Your task to perform on an android device: uninstall "Reddit" Image 0: 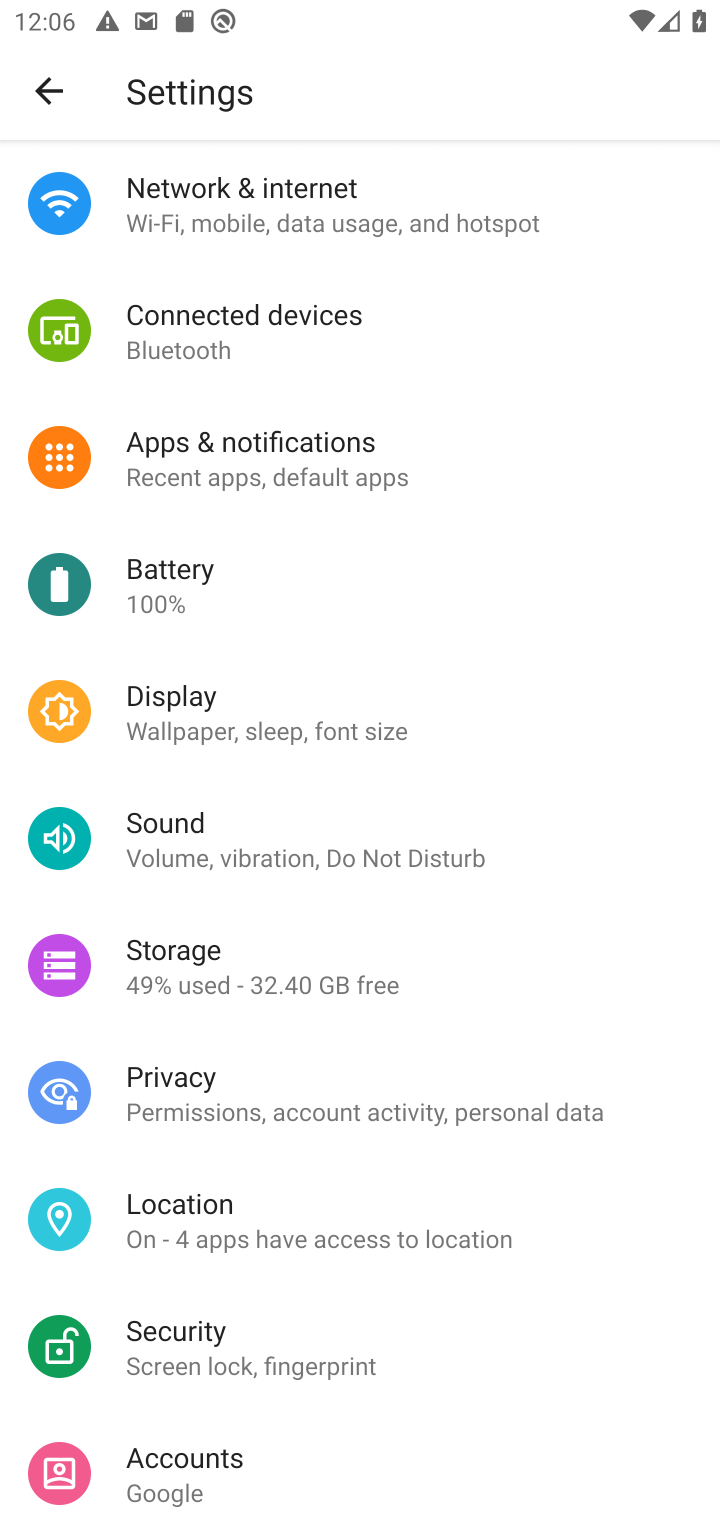
Step 0: press home button
Your task to perform on an android device: uninstall "Reddit" Image 1: 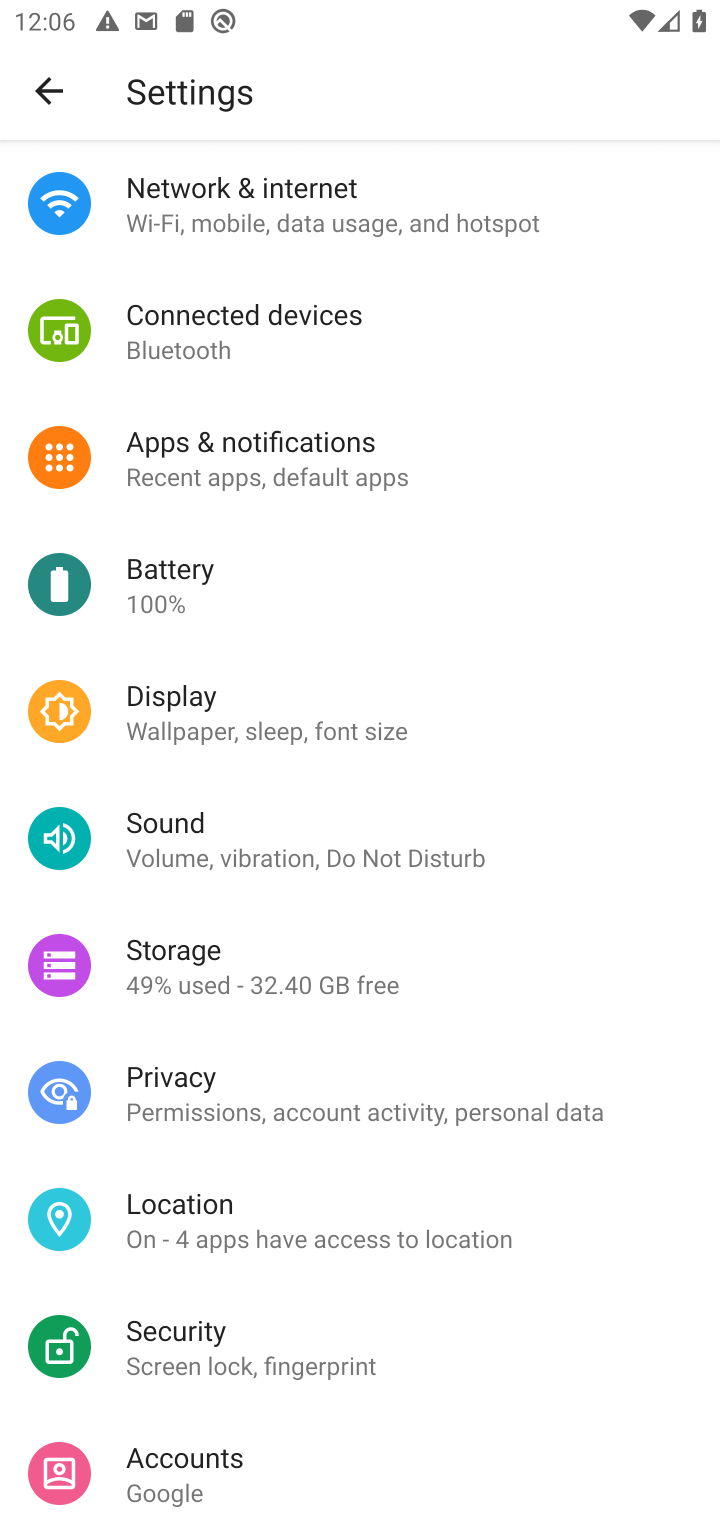
Step 1: press home button
Your task to perform on an android device: uninstall "Reddit" Image 2: 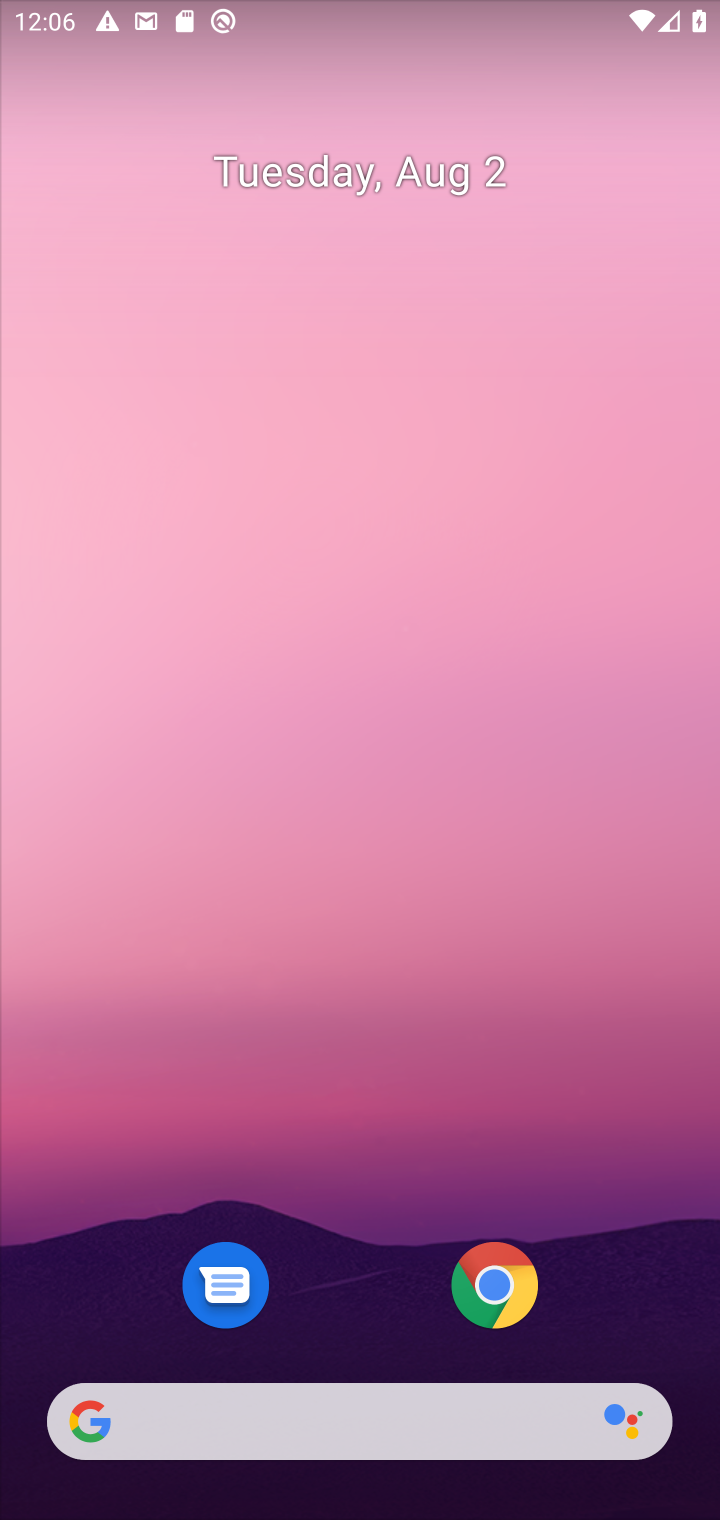
Step 2: click (359, 631)
Your task to perform on an android device: uninstall "Reddit" Image 3: 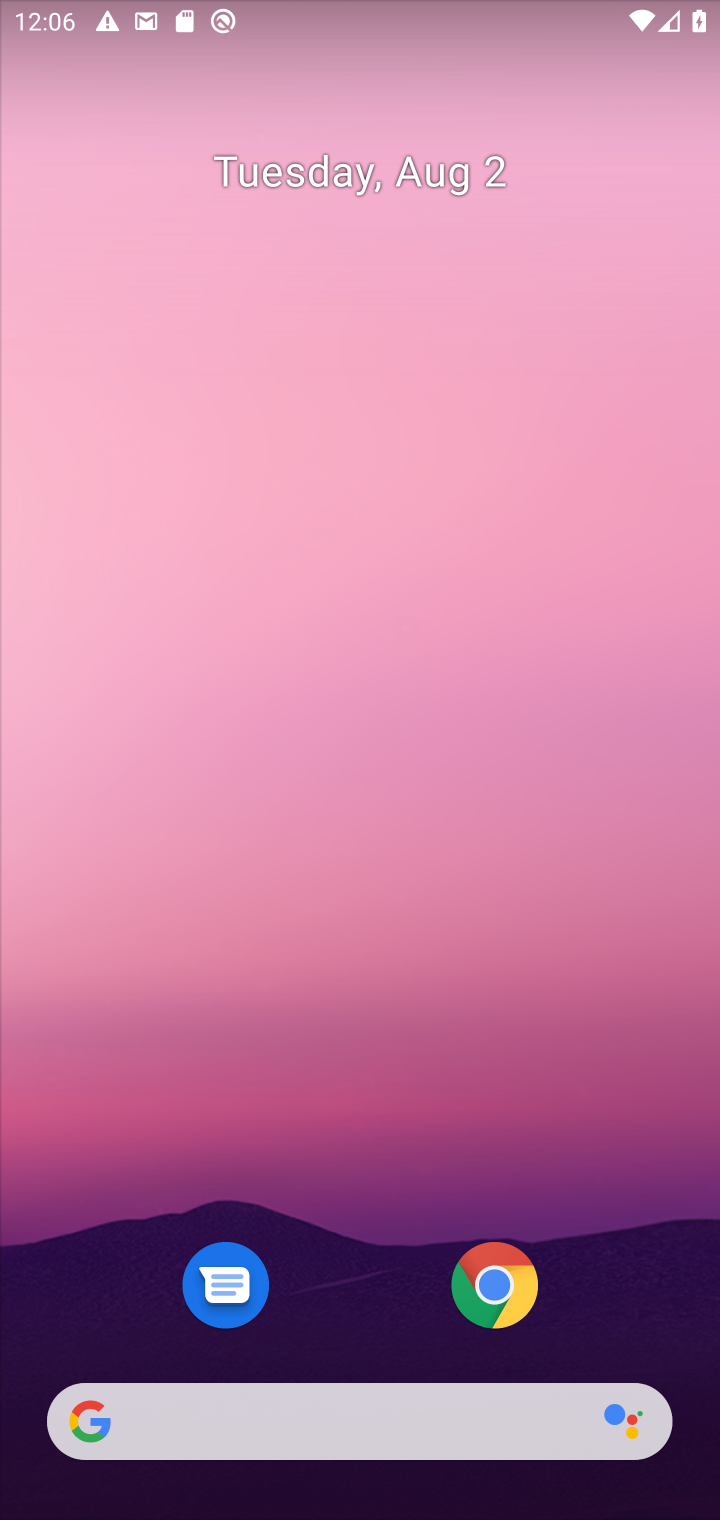
Step 3: drag from (285, 1258) to (423, 4)
Your task to perform on an android device: uninstall "Reddit" Image 4: 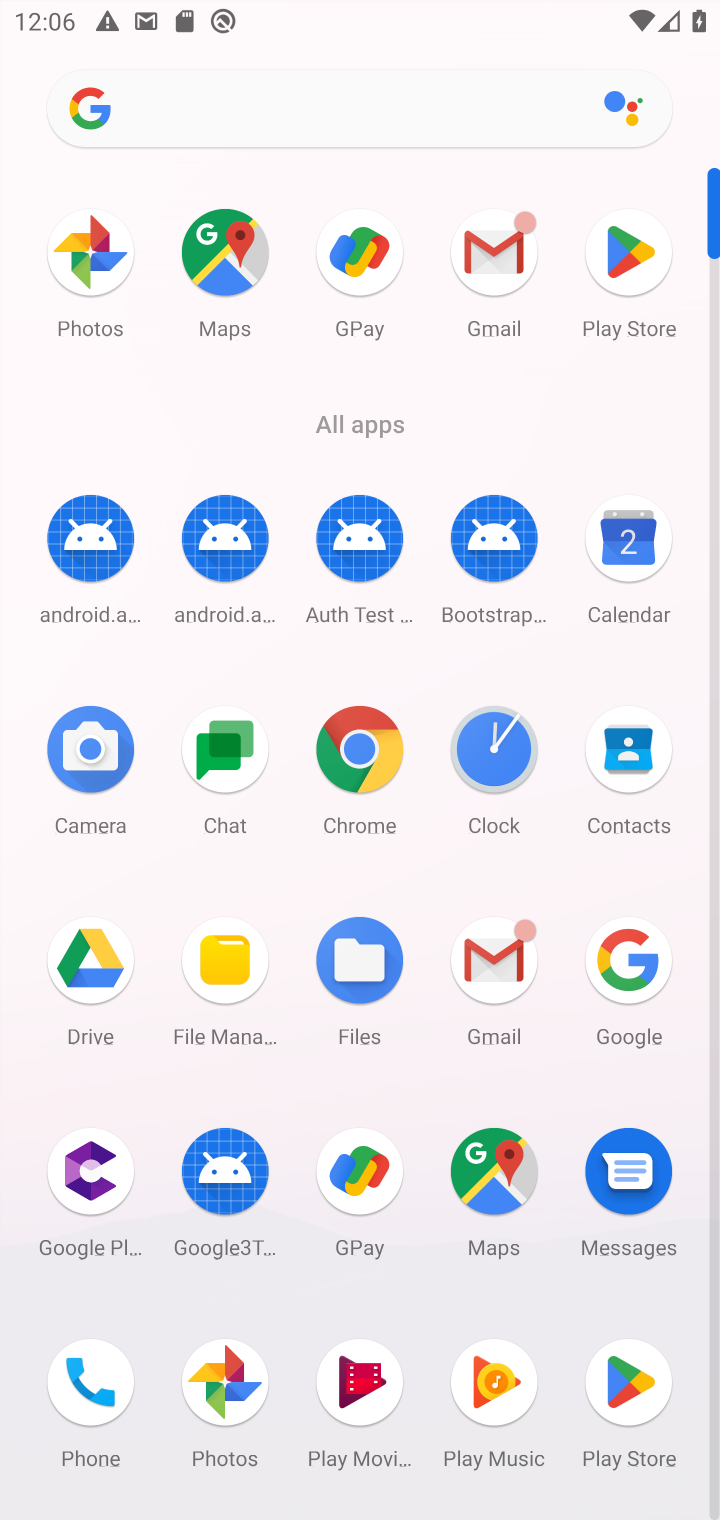
Step 4: click (596, 269)
Your task to perform on an android device: uninstall "Reddit" Image 5: 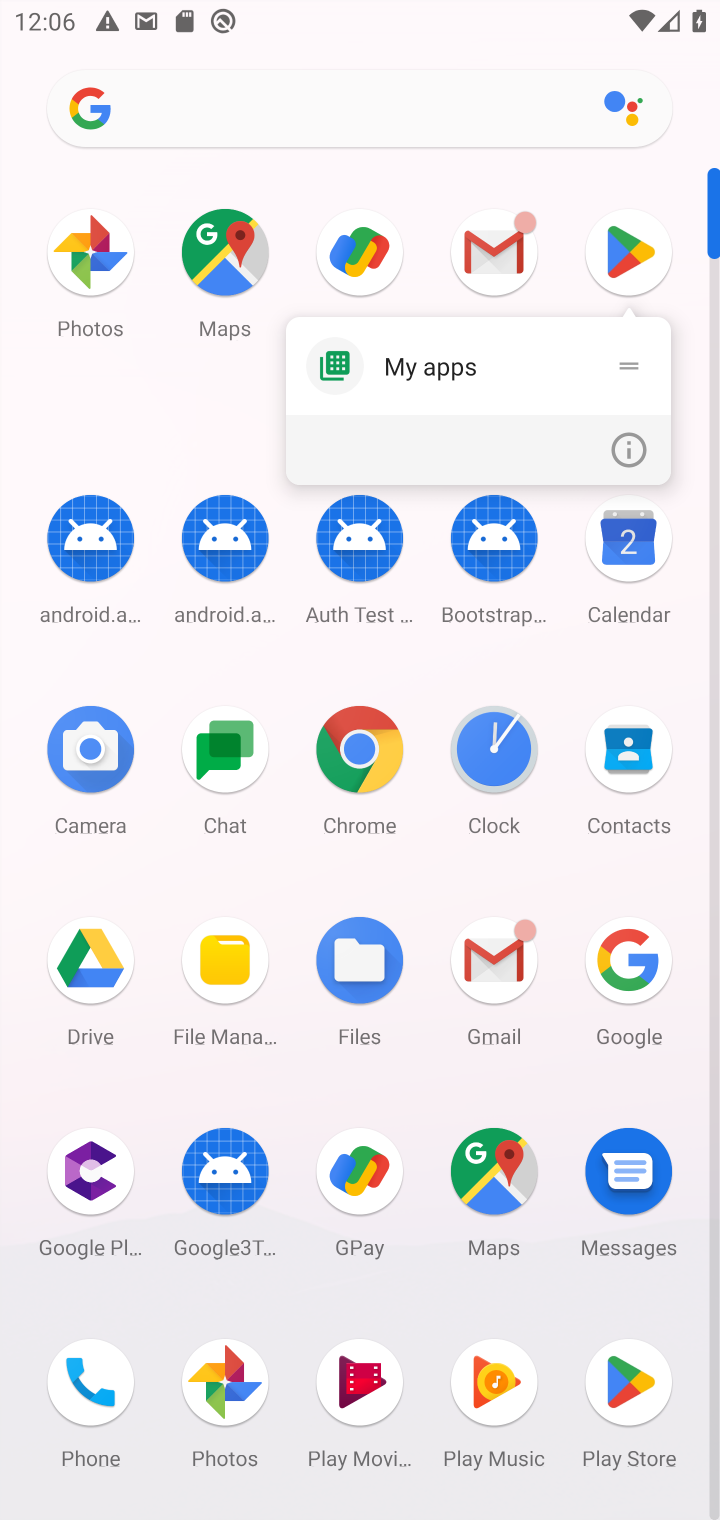
Step 5: click (621, 282)
Your task to perform on an android device: uninstall "Reddit" Image 6: 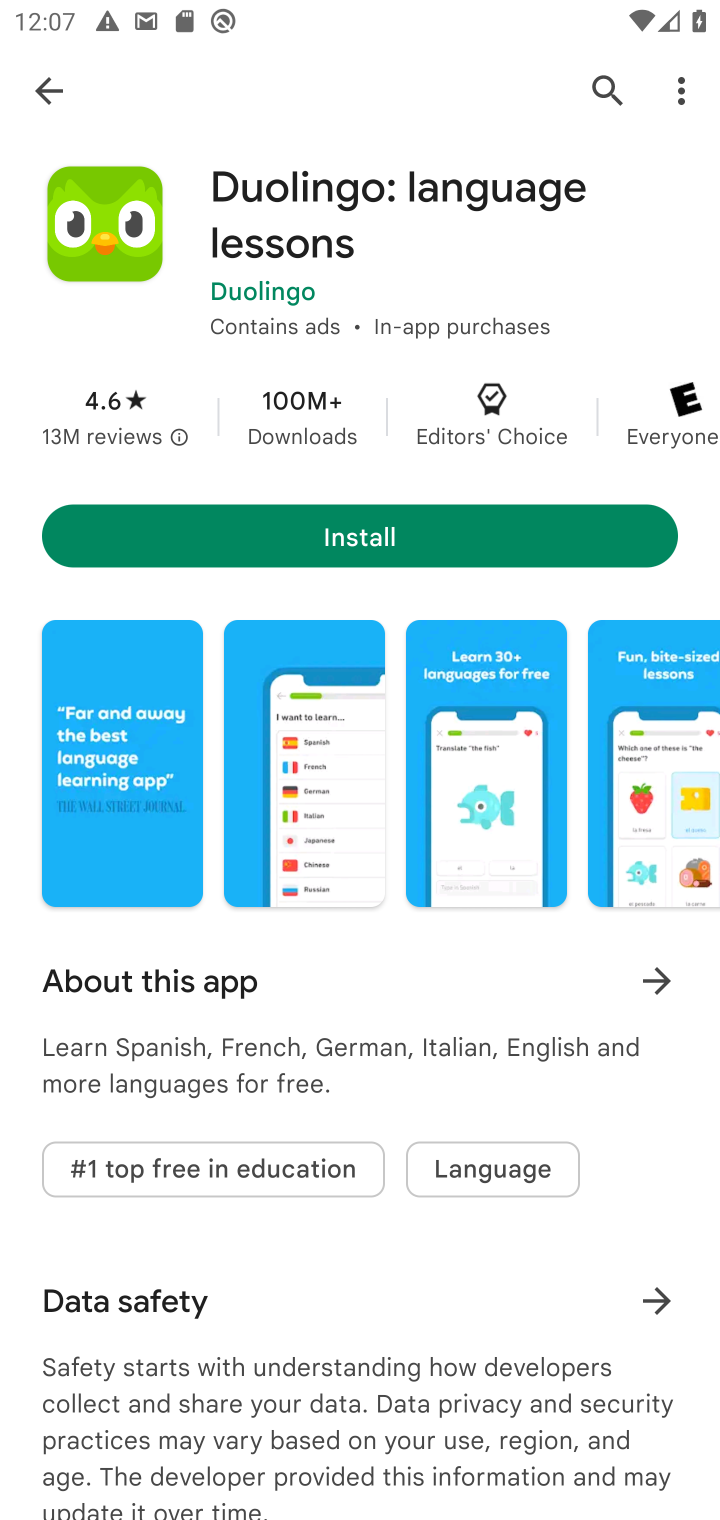
Step 6: click (620, 73)
Your task to perform on an android device: uninstall "Reddit" Image 7: 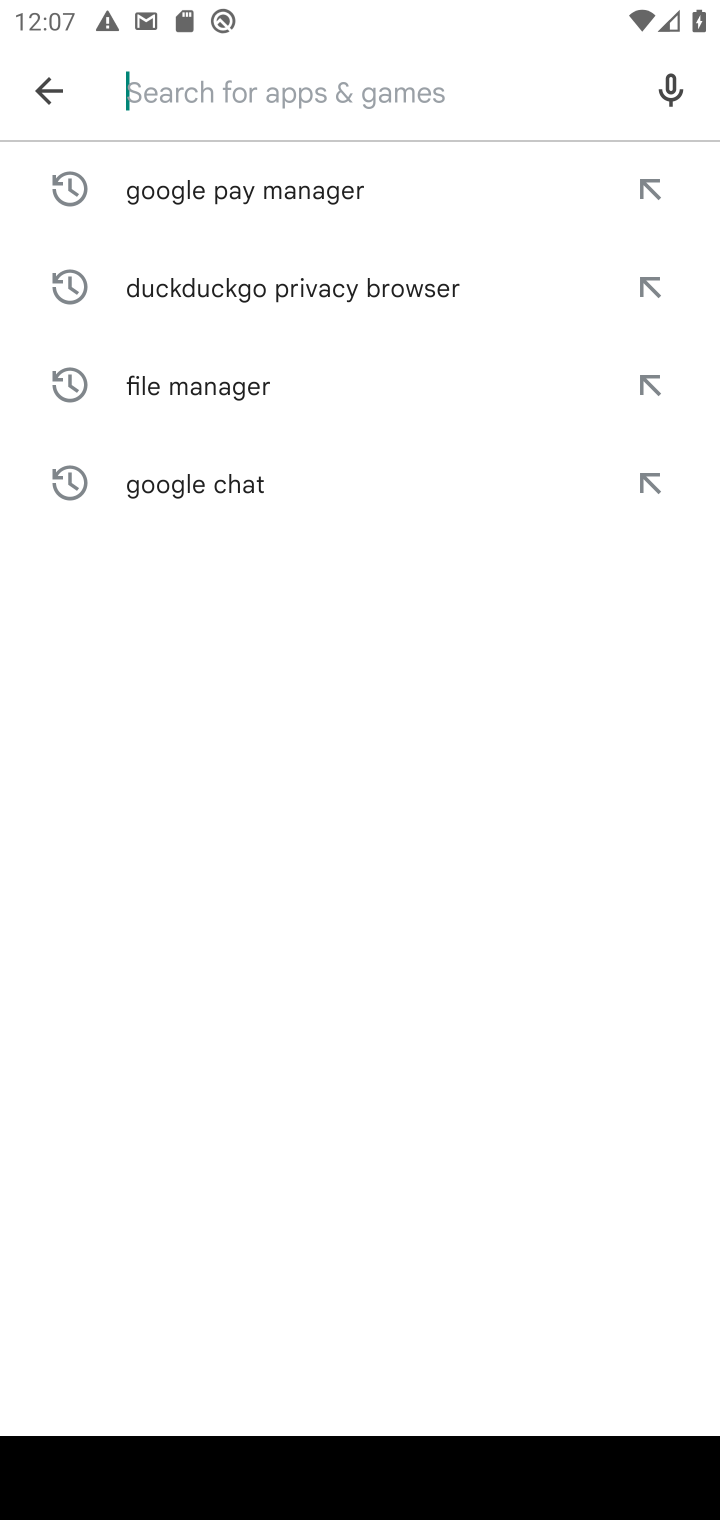
Step 7: click (568, 78)
Your task to perform on an android device: uninstall "Reddit" Image 8: 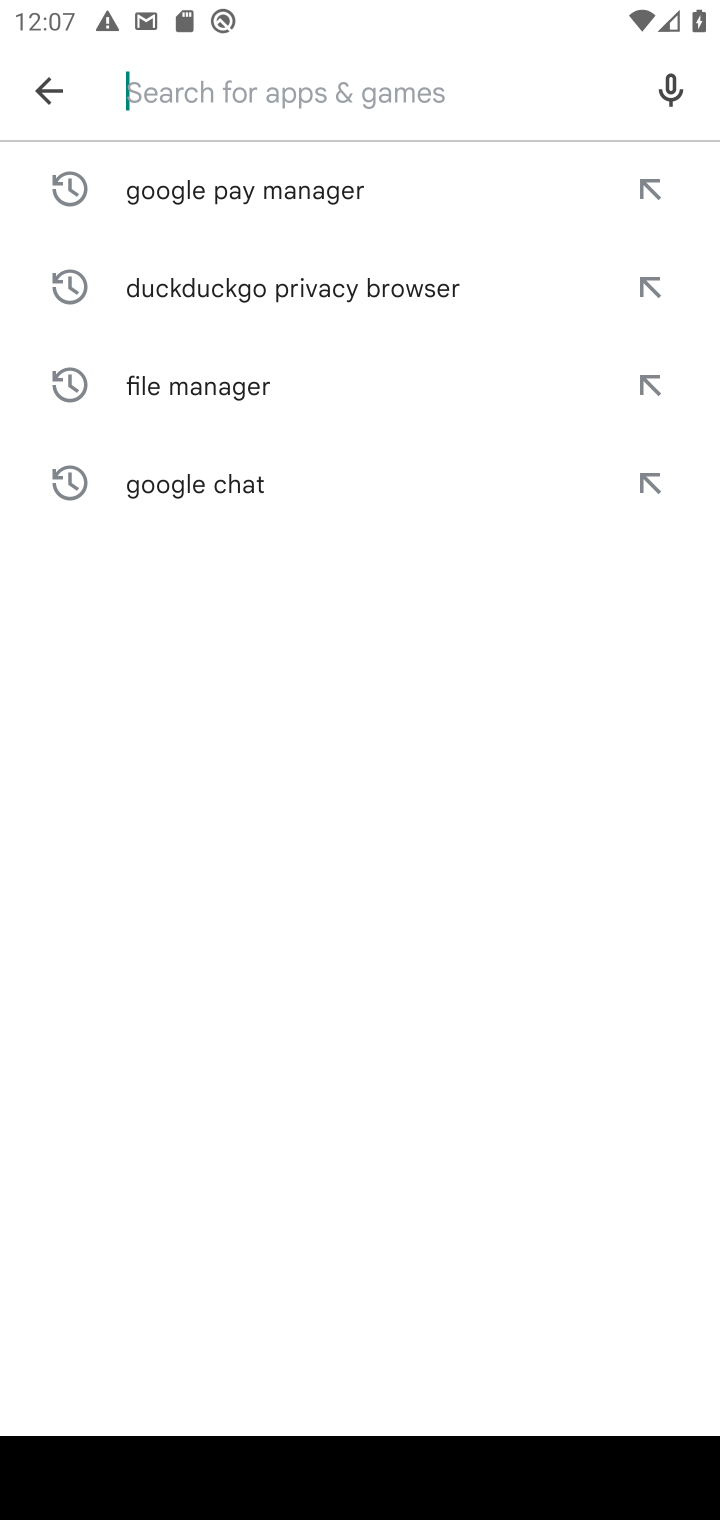
Step 8: type "Reddit"
Your task to perform on an android device: uninstall "Reddit" Image 9: 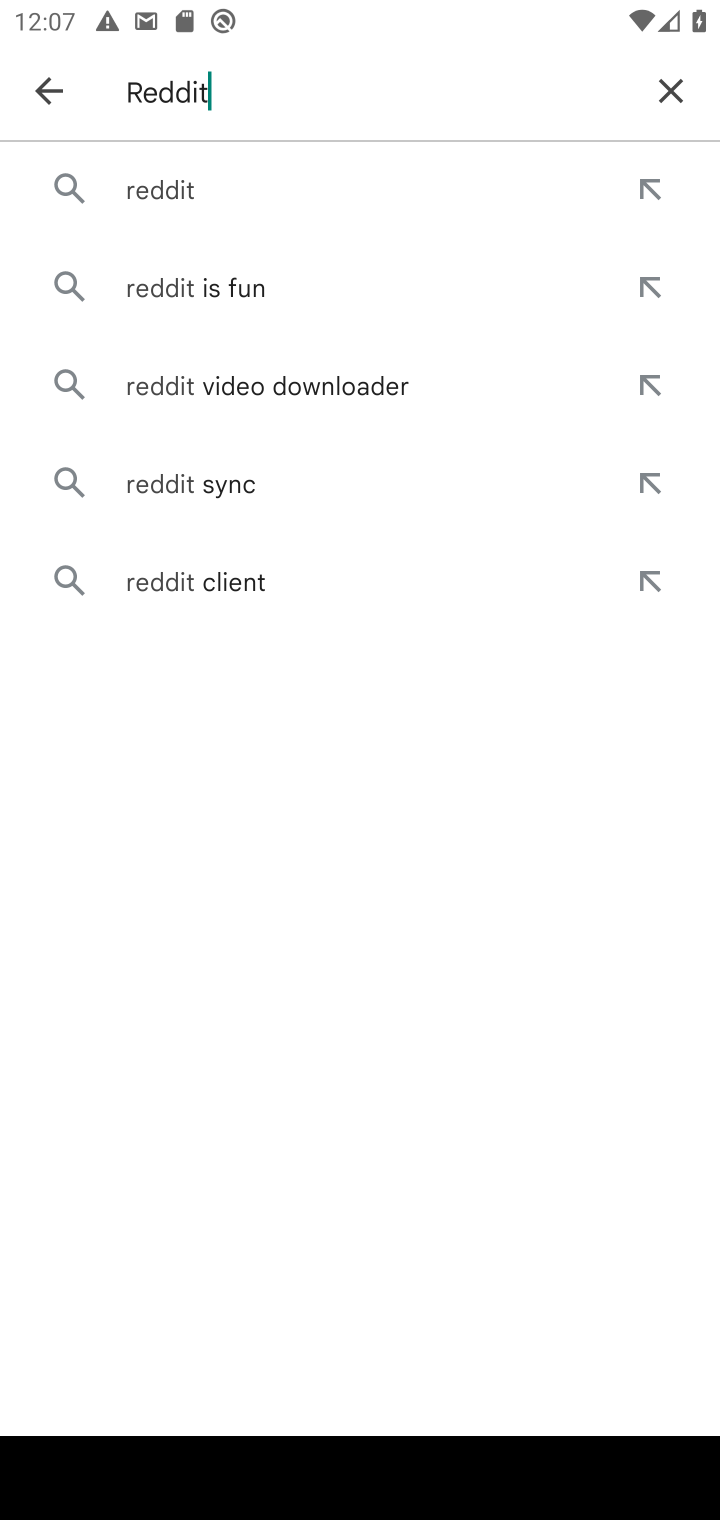
Step 9: click (109, 198)
Your task to perform on an android device: uninstall "Reddit" Image 10: 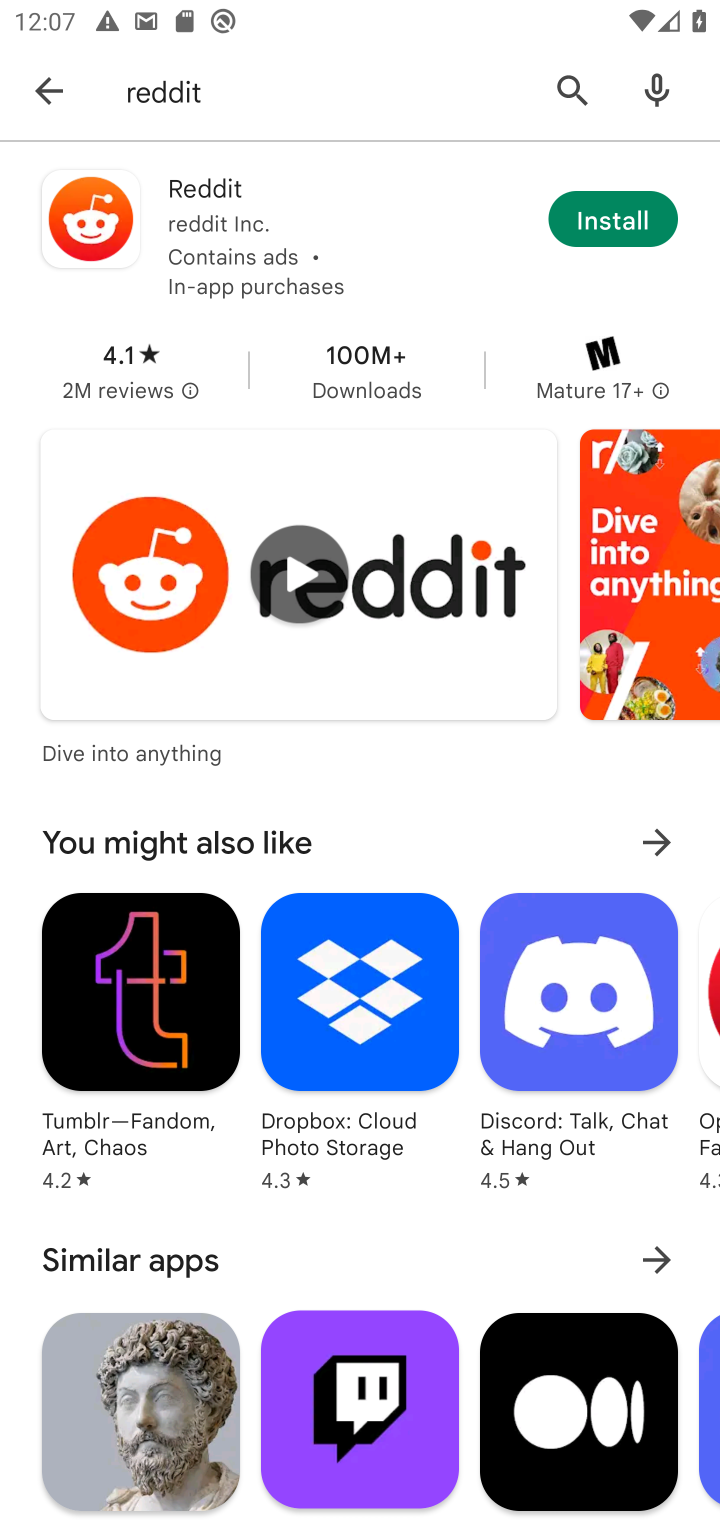
Step 10: task complete